Your task to perform on an android device: turn on the 24-hour format for clock Image 0: 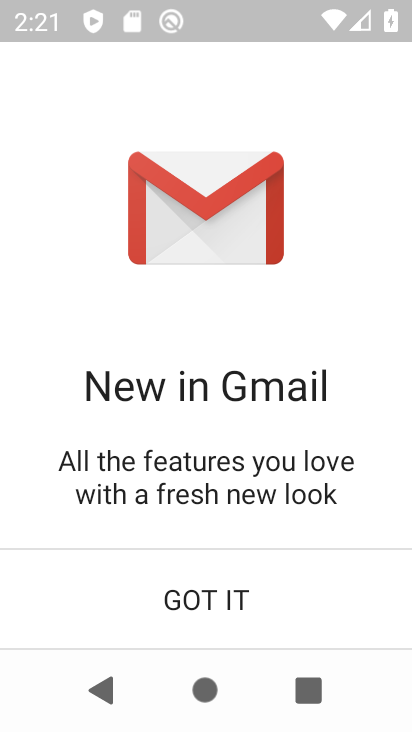
Step 0: press home button
Your task to perform on an android device: turn on the 24-hour format for clock Image 1: 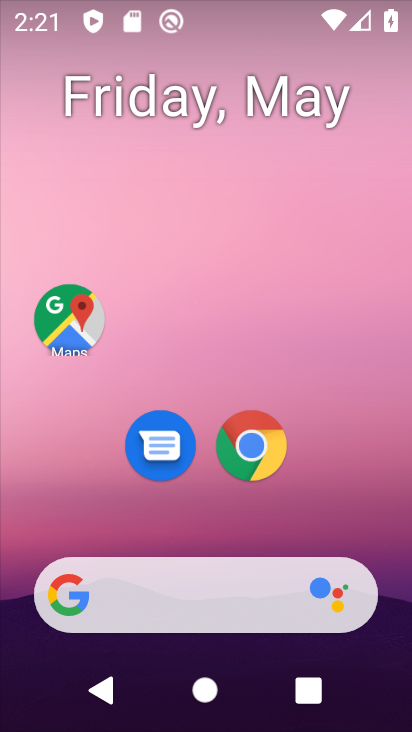
Step 1: drag from (43, 539) to (161, 107)
Your task to perform on an android device: turn on the 24-hour format for clock Image 2: 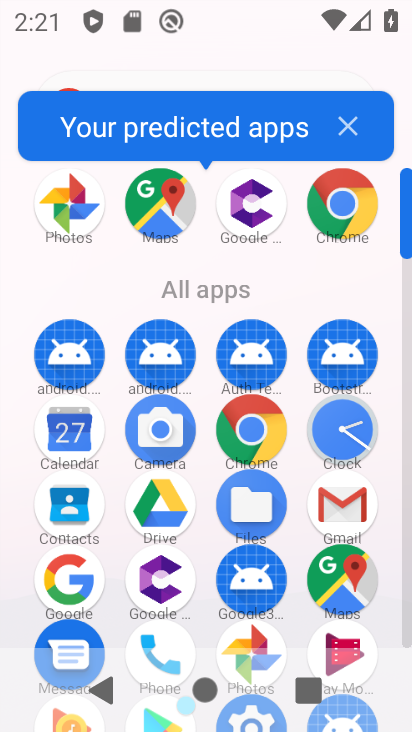
Step 2: click (375, 433)
Your task to perform on an android device: turn on the 24-hour format for clock Image 3: 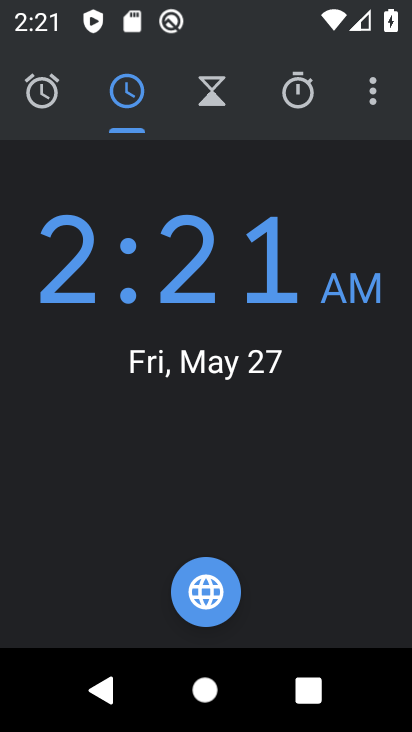
Step 3: click (374, 98)
Your task to perform on an android device: turn on the 24-hour format for clock Image 4: 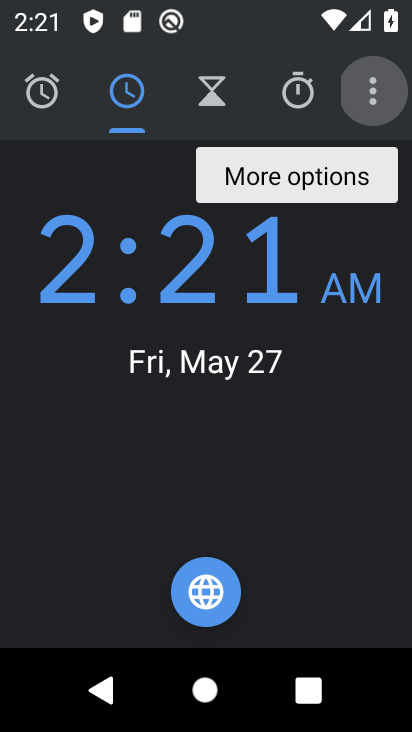
Step 4: click (374, 98)
Your task to perform on an android device: turn on the 24-hour format for clock Image 5: 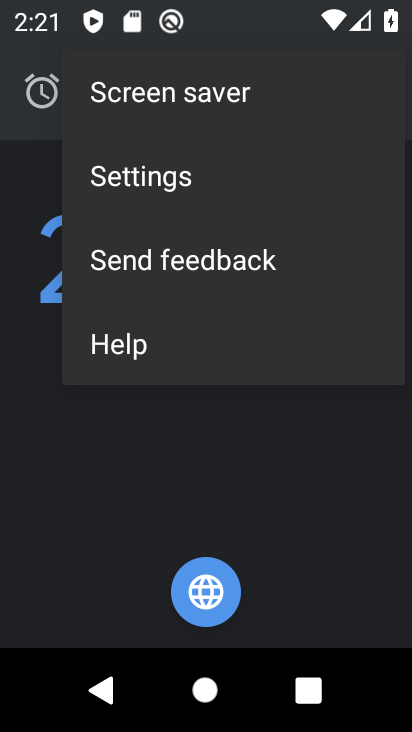
Step 5: click (272, 189)
Your task to perform on an android device: turn on the 24-hour format for clock Image 6: 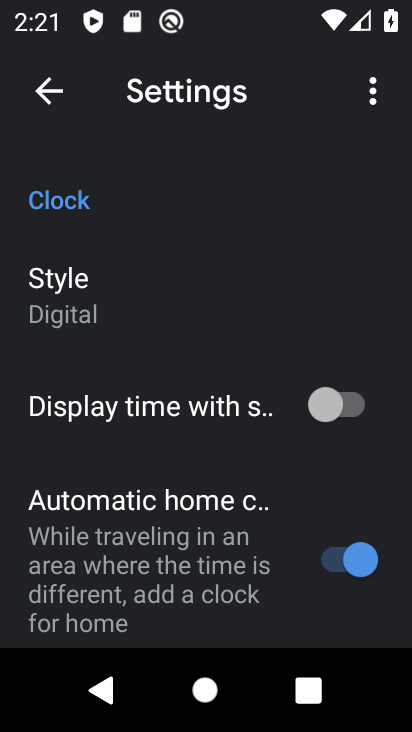
Step 6: drag from (148, 542) to (227, 177)
Your task to perform on an android device: turn on the 24-hour format for clock Image 7: 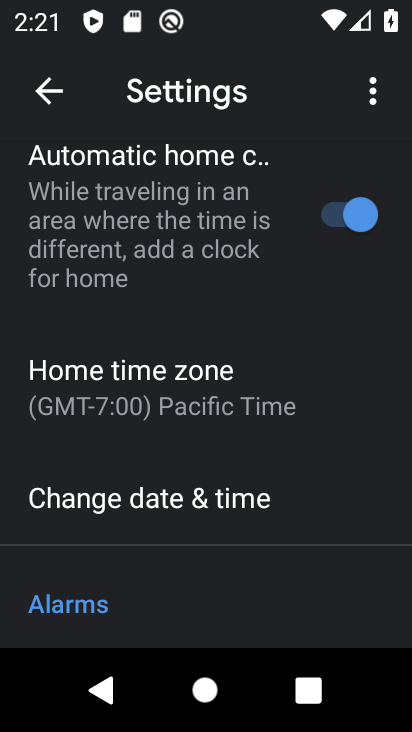
Step 7: click (243, 509)
Your task to perform on an android device: turn on the 24-hour format for clock Image 8: 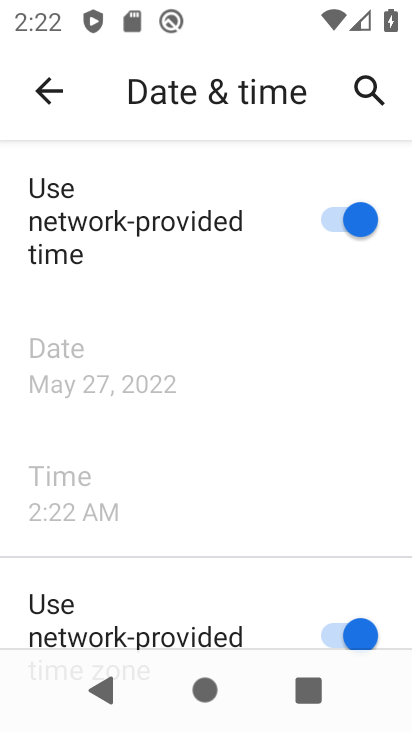
Step 8: drag from (118, 604) to (230, 165)
Your task to perform on an android device: turn on the 24-hour format for clock Image 9: 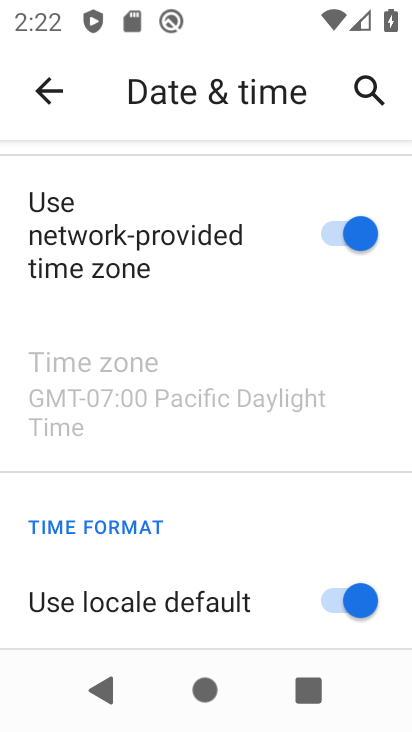
Step 9: drag from (125, 563) to (252, 45)
Your task to perform on an android device: turn on the 24-hour format for clock Image 10: 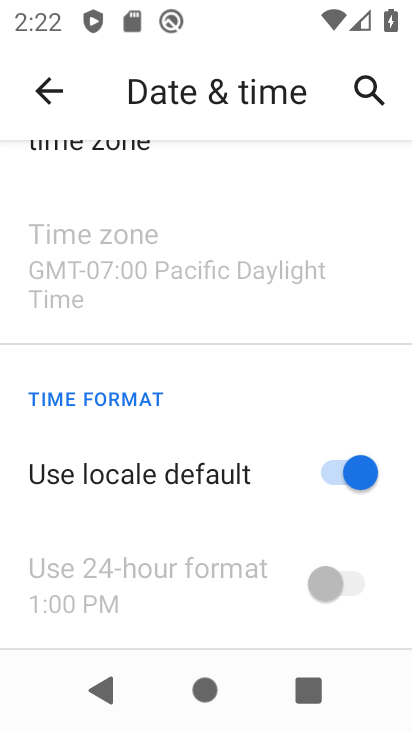
Step 10: click (329, 468)
Your task to perform on an android device: turn on the 24-hour format for clock Image 11: 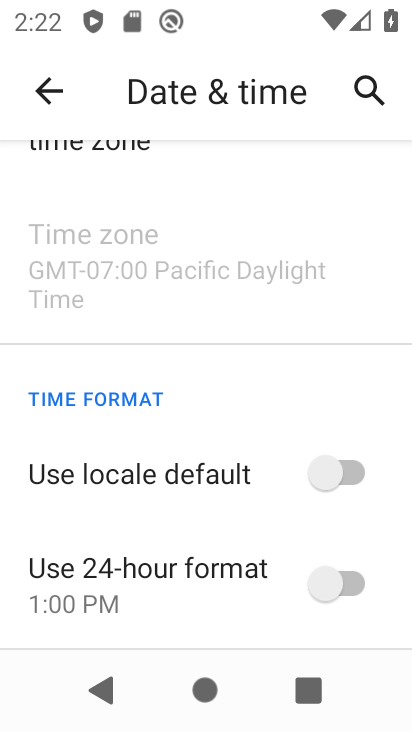
Step 11: click (368, 586)
Your task to perform on an android device: turn on the 24-hour format for clock Image 12: 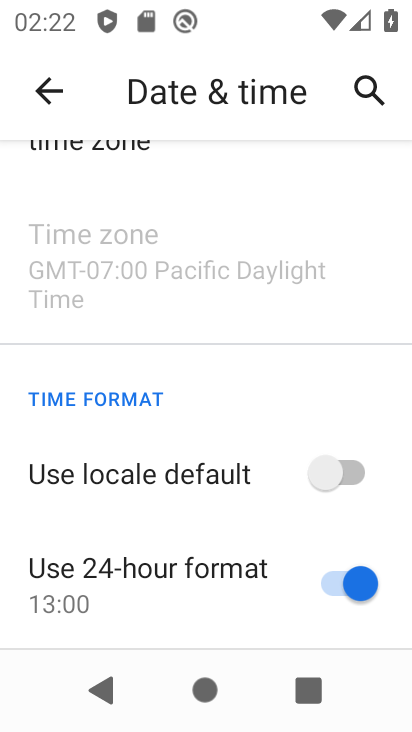
Step 12: task complete